Your task to perform on an android device: Go to accessibility settings Image 0: 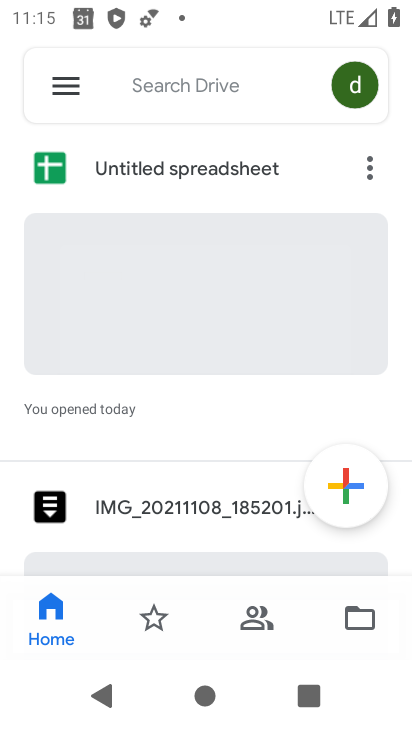
Step 0: press home button
Your task to perform on an android device: Go to accessibility settings Image 1: 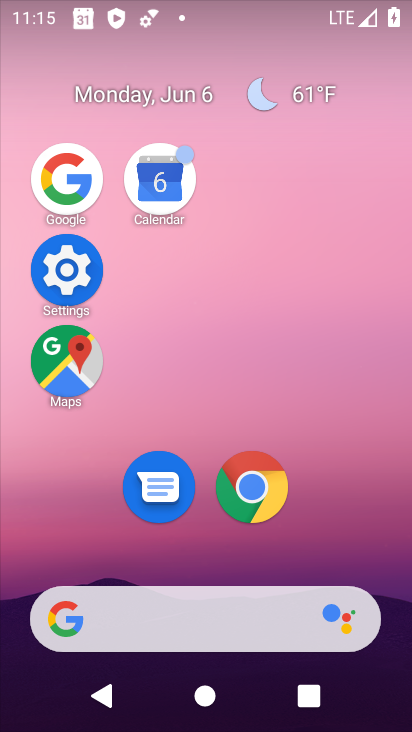
Step 1: click (112, 266)
Your task to perform on an android device: Go to accessibility settings Image 2: 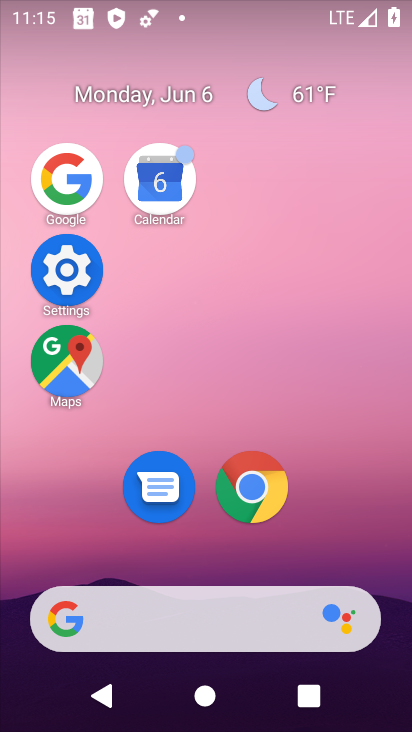
Step 2: click (97, 270)
Your task to perform on an android device: Go to accessibility settings Image 3: 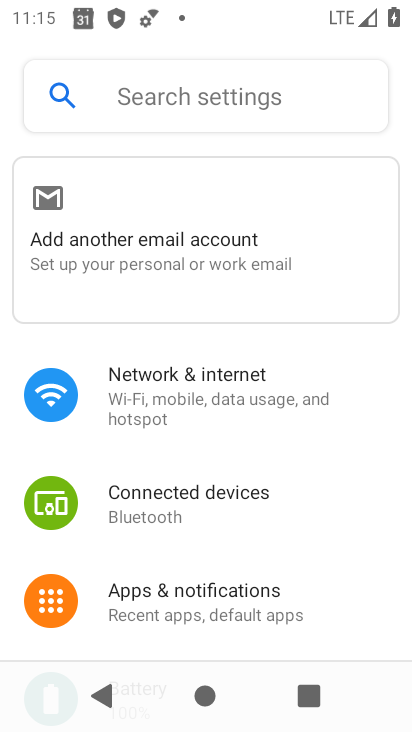
Step 3: drag from (187, 566) to (200, 230)
Your task to perform on an android device: Go to accessibility settings Image 4: 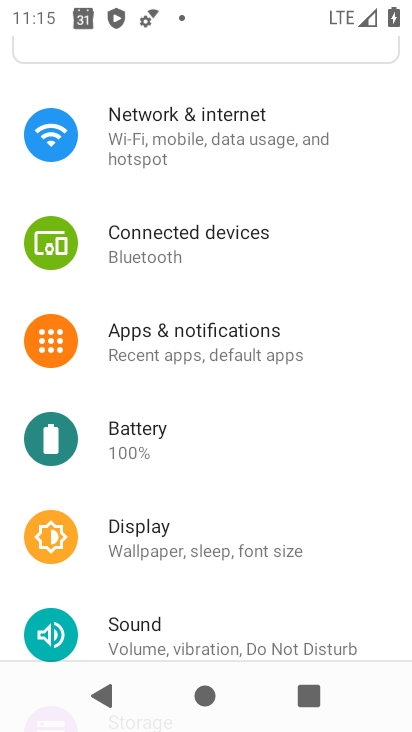
Step 4: drag from (257, 521) to (232, 170)
Your task to perform on an android device: Go to accessibility settings Image 5: 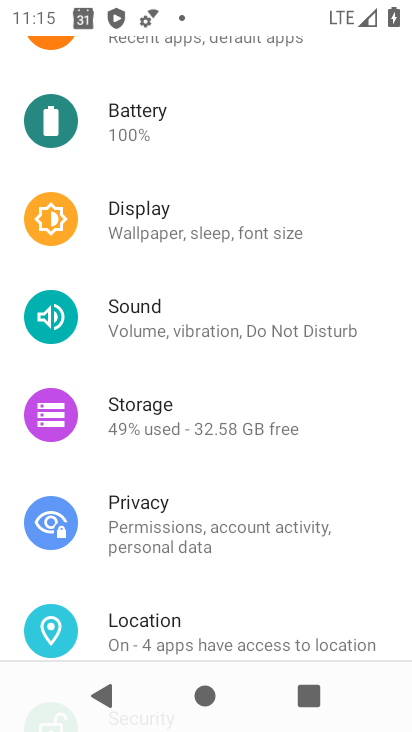
Step 5: drag from (281, 526) to (288, 208)
Your task to perform on an android device: Go to accessibility settings Image 6: 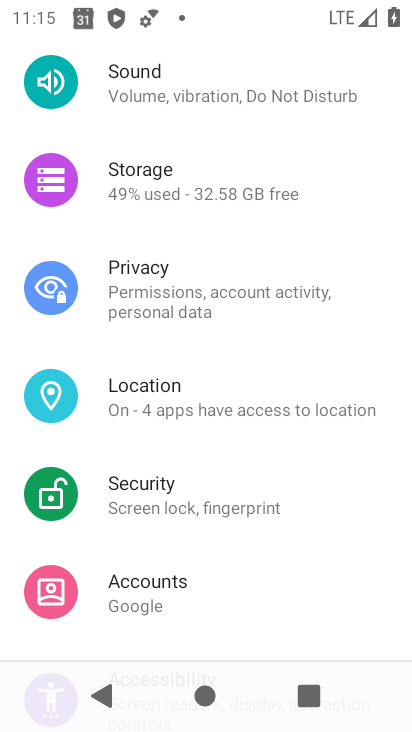
Step 6: drag from (286, 554) to (307, 233)
Your task to perform on an android device: Go to accessibility settings Image 7: 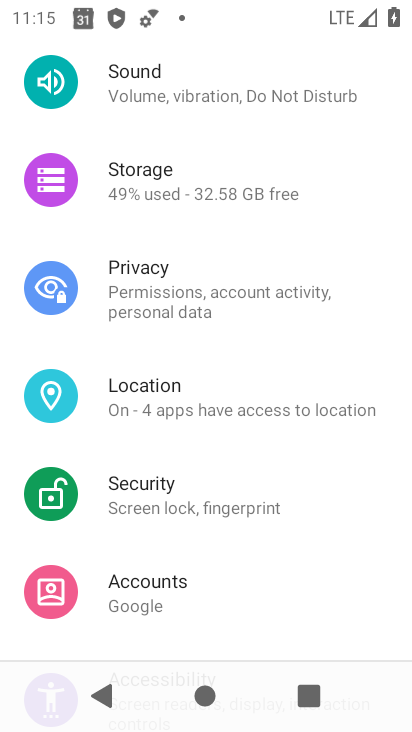
Step 7: drag from (294, 509) to (342, 157)
Your task to perform on an android device: Go to accessibility settings Image 8: 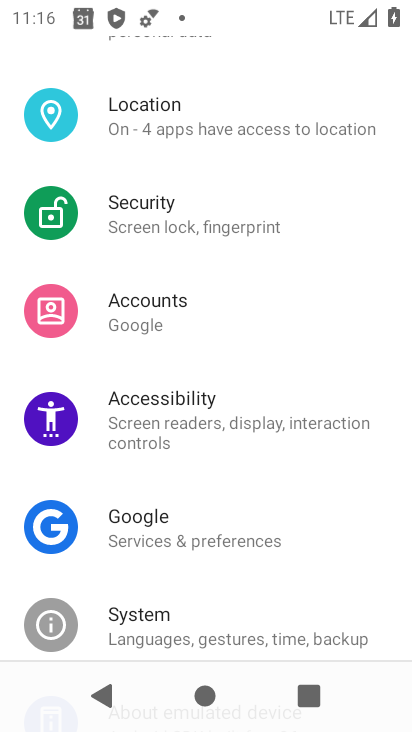
Step 8: click (261, 432)
Your task to perform on an android device: Go to accessibility settings Image 9: 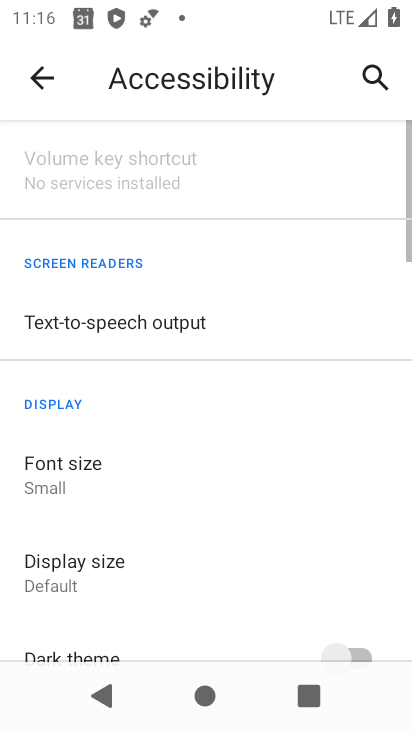
Step 9: task complete